Your task to perform on an android device: toggle pop-ups in chrome Image 0: 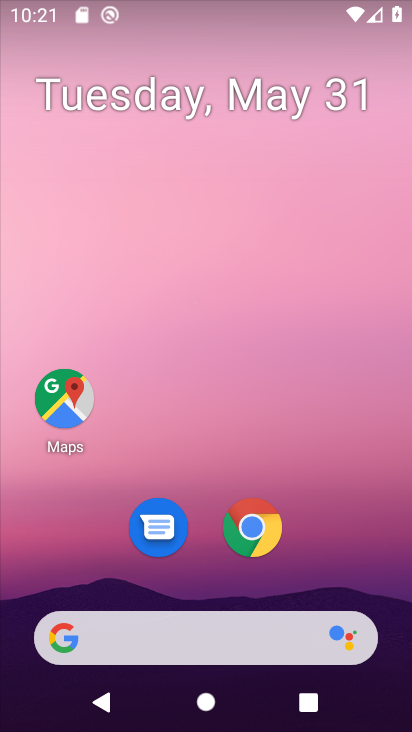
Step 0: click (267, 534)
Your task to perform on an android device: toggle pop-ups in chrome Image 1: 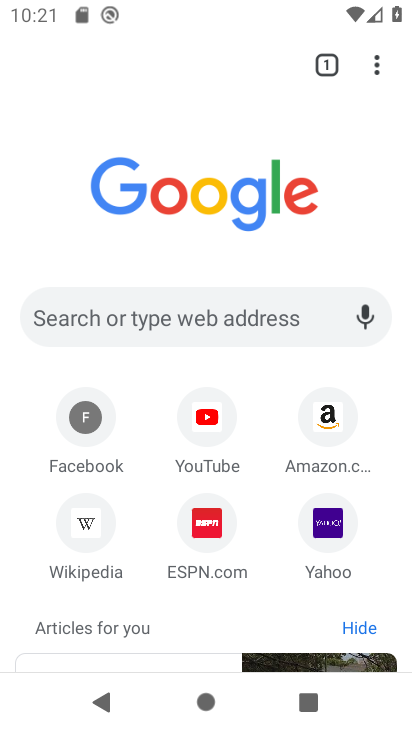
Step 1: click (377, 66)
Your task to perform on an android device: toggle pop-ups in chrome Image 2: 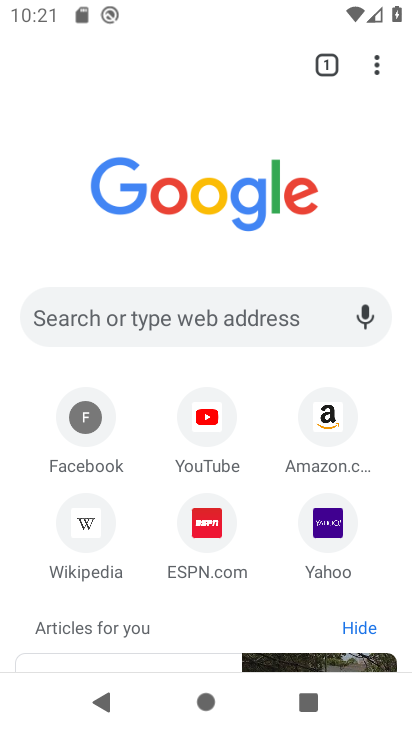
Step 2: click (378, 54)
Your task to perform on an android device: toggle pop-ups in chrome Image 3: 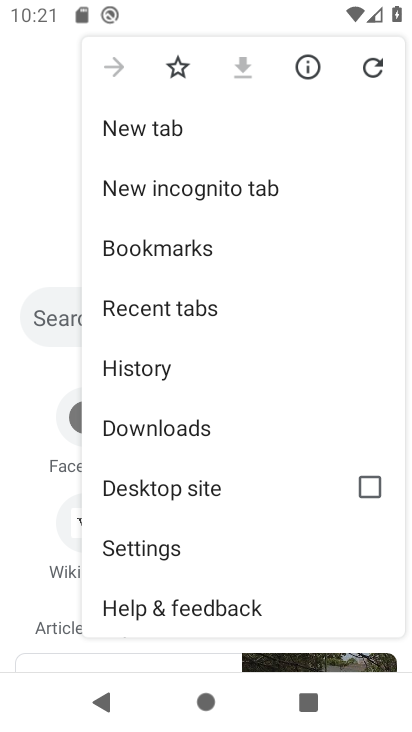
Step 3: click (206, 547)
Your task to perform on an android device: toggle pop-ups in chrome Image 4: 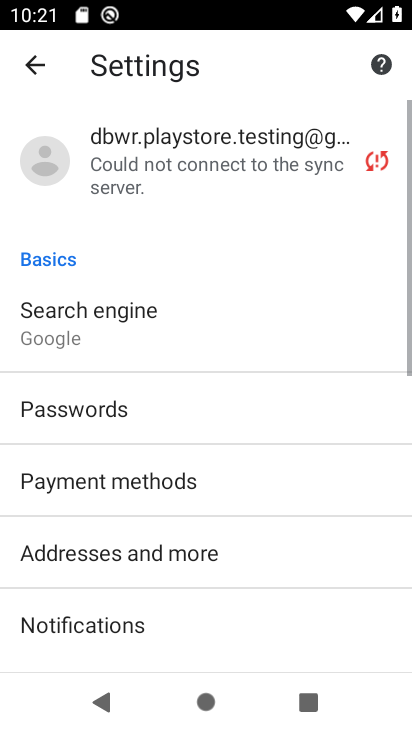
Step 4: drag from (244, 429) to (104, 0)
Your task to perform on an android device: toggle pop-ups in chrome Image 5: 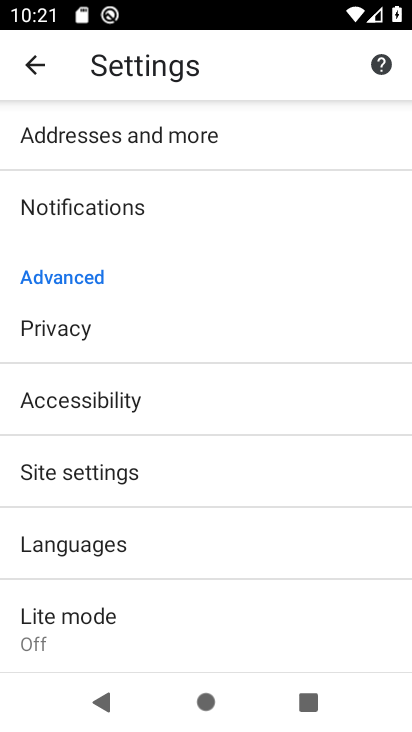
Step 5: click (166, 475)
Your task to perform on an android device: toggle pop-ups in chrome Image 6: 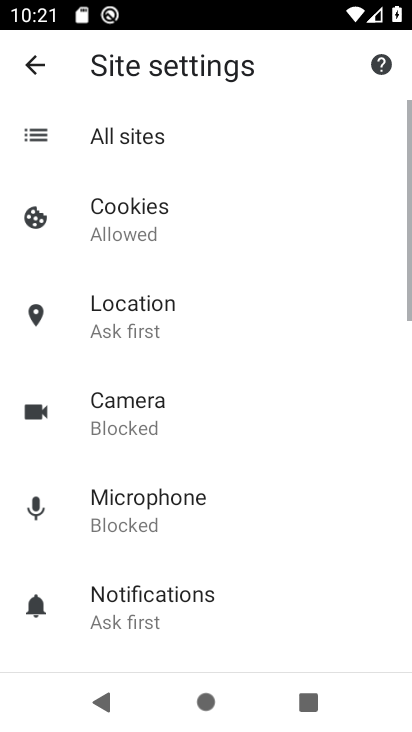
Step 6: drag from (216, 546) to (259, 236)
Your task to perform on an android device: toggle pop-ups in chrome Image 7: 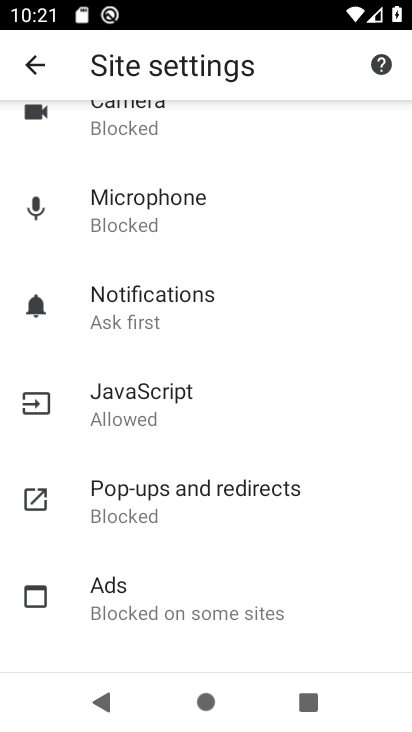
Step 7: click (206, 498)
Your task to perform on an android device: toggle pop-ups in chrome Image 8: 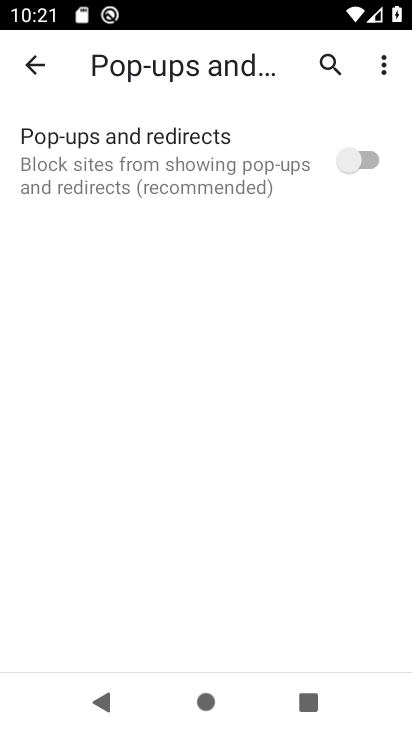
Step 8: click (361, 154)
Your task to perform on an android device: toggle pop-ups in chrome Image 9: 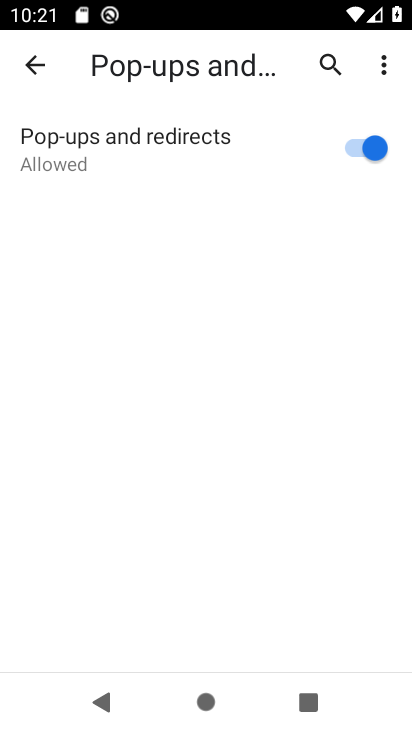
Step 9: task complete